Your task to perform on an android device: clear all cookies in the chrome app Image 0: 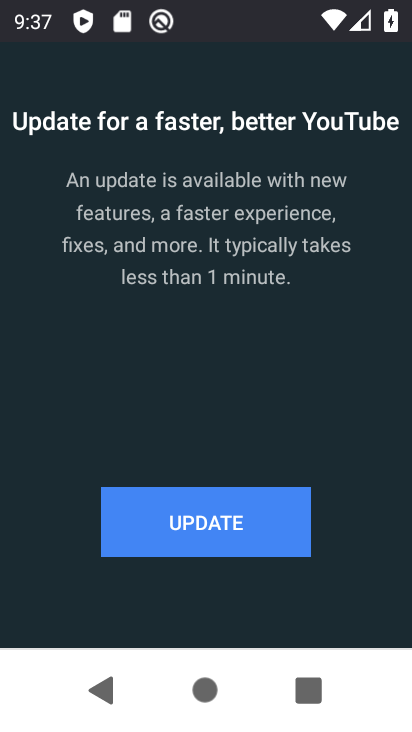
Step 0: press home button
Your task to perform on an android device: clear all cookies in the chrome app Image 1: 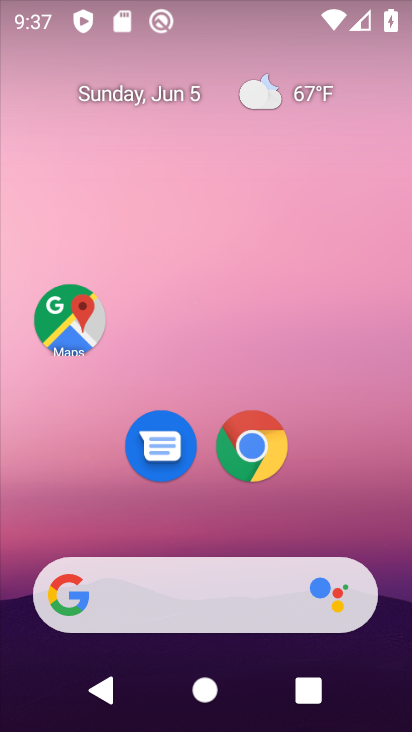
Step 1: click (245, 465)
Your task to perform on an android device: clear all cookies in the chrome app Image 2: 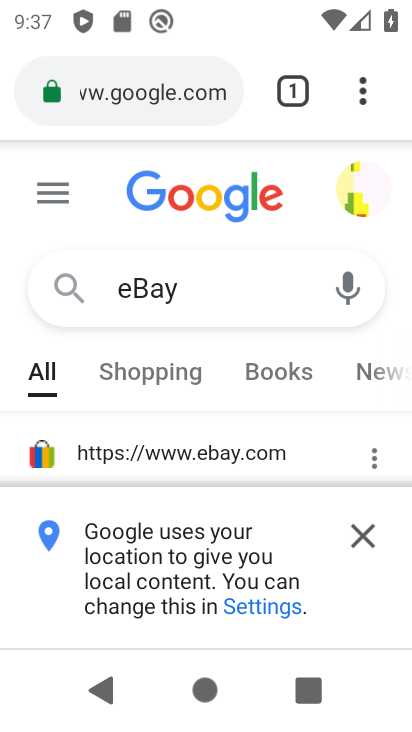
Step 2: drag from (360, 94) to (84, 495)
Your task to perform on an android device: clear all cookies in the chrome app Image 3: 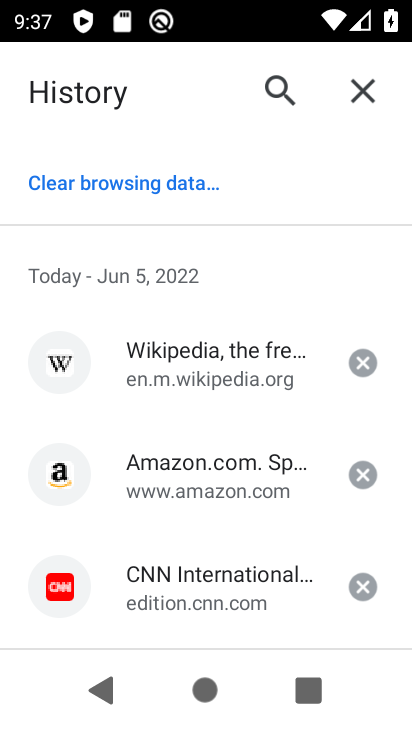
Step 3: click (136, 189)
Your task to perform on an android device: clear all cookies in the chrome app Image 4: 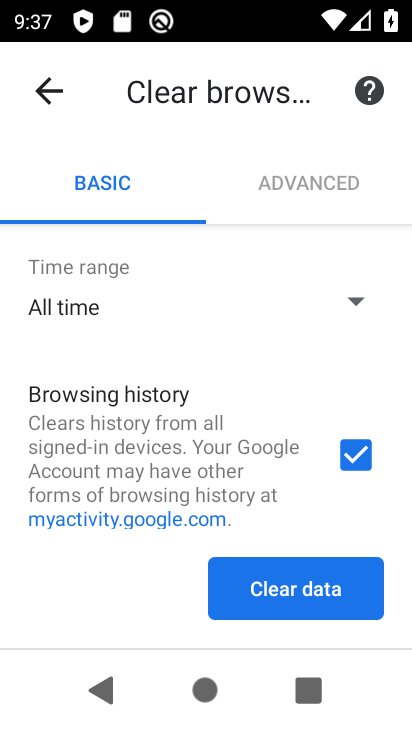
Step 4: drag from (198, 487) to (245, 250)
Your task to perform on an android device: clear all cookies in the chrome app Image 5: 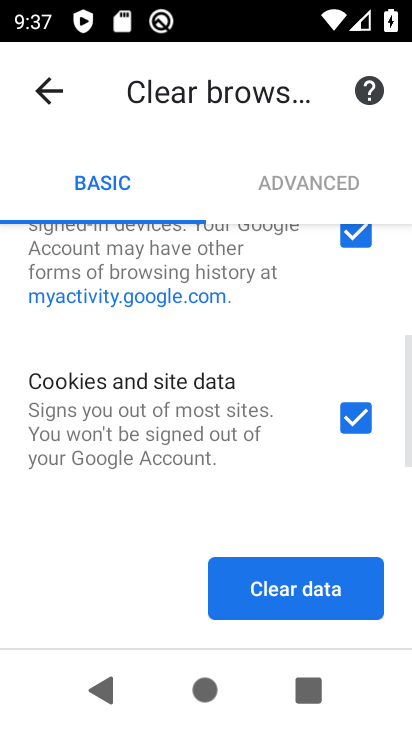
Step 5: click (304, 588)
Your task to perform on an android device: clear all cookies in the chrome app Image 6: 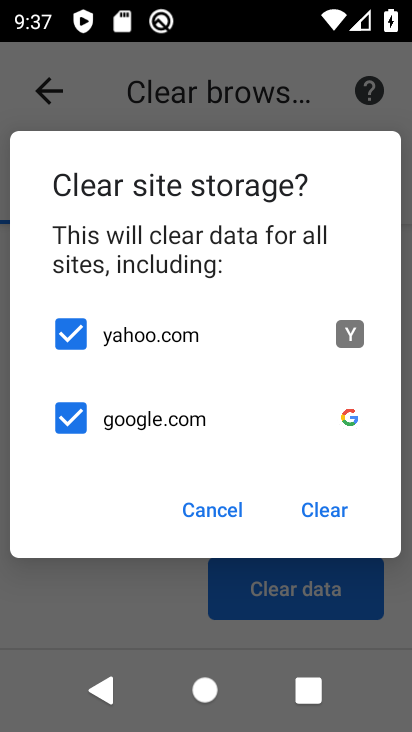
Step 6: click (327, 509)
Your task to perform on an android device: clear all cookies in the chrome app Image 7: 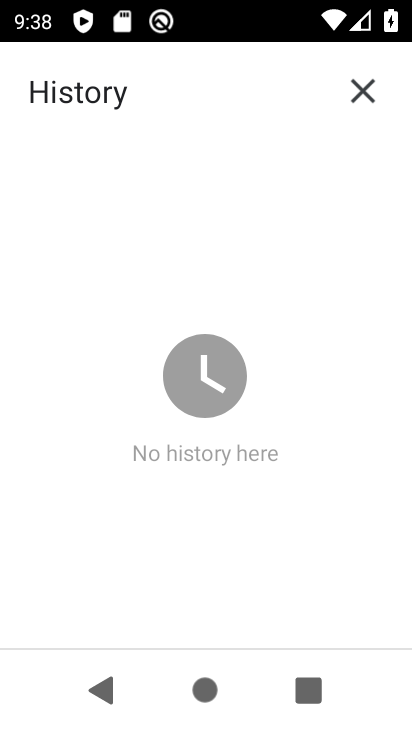
Step 7: task complete